Your task to perform on an android device: Open Wikipedia Image 0: 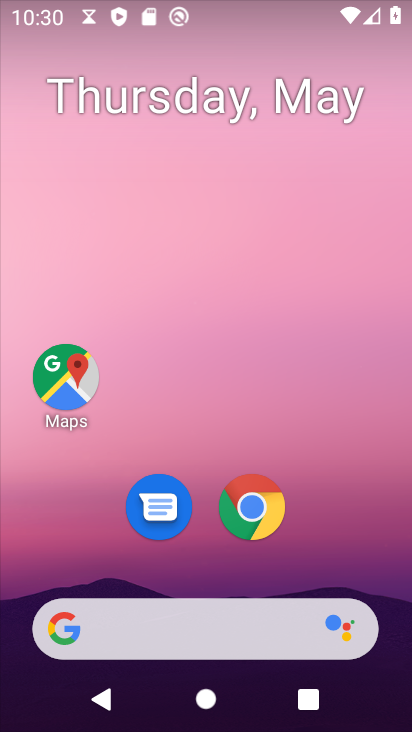
Step 0: drag from (335, 524) to (259, 0)
Your task to perform on an android device: Open Wikipedia Image 1: 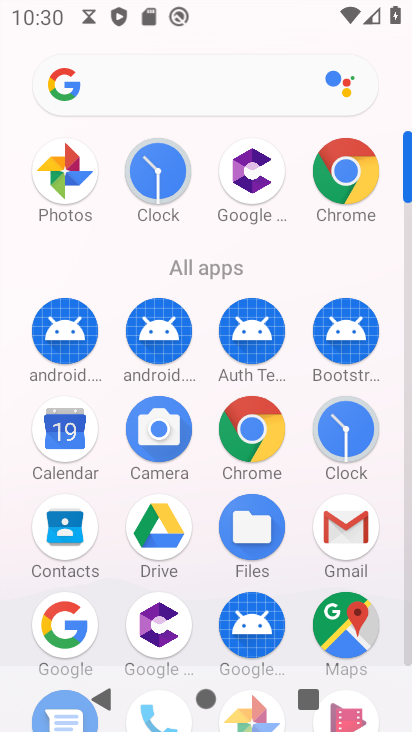
Step 1: click (345, 171)
Your task to perform on an android device: Open Wikipedia Image 2: 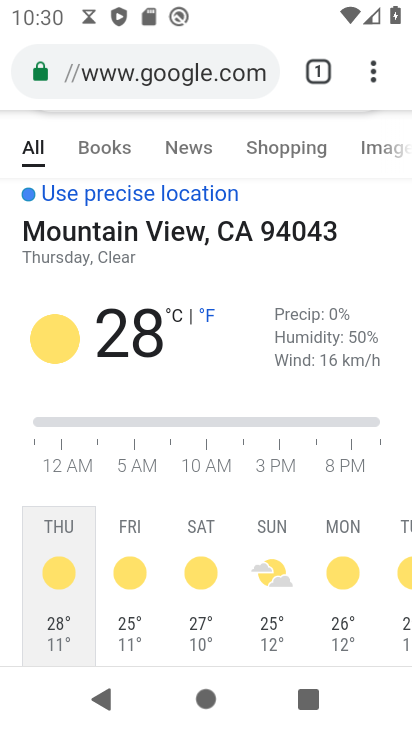
Step 2: click (172, 64)
Your task to perform on an android device: Open Wikipedia Image 3: 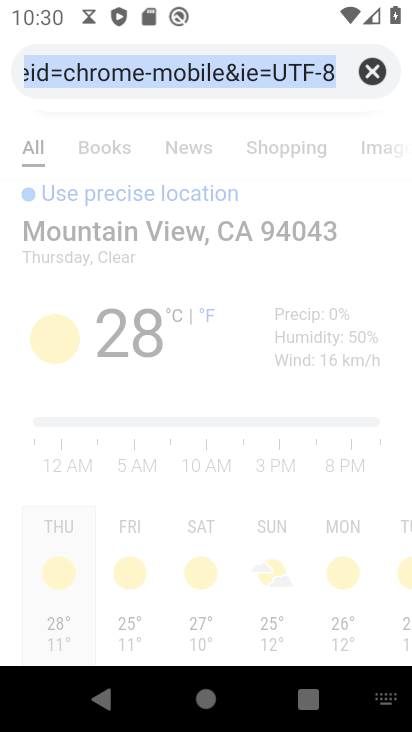
Step 3: click (362, 66)
Your task to perform on an android device: Open Wikipedia Image 4: 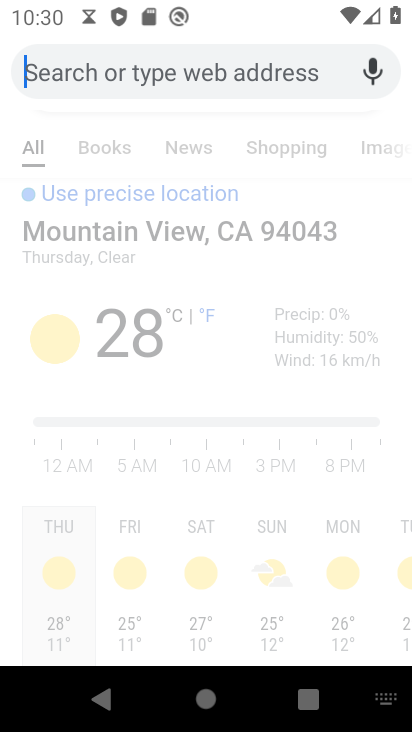
Step 4: type "Wikipedia"
Your task to perform on an android device: Open Wikipedia Image 5: 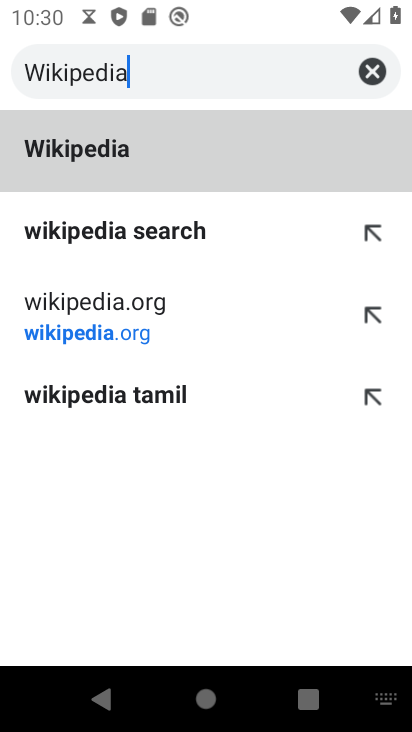
Step 5: type ""
Your task to perform on an android device: Open Wikipedia Image 6: 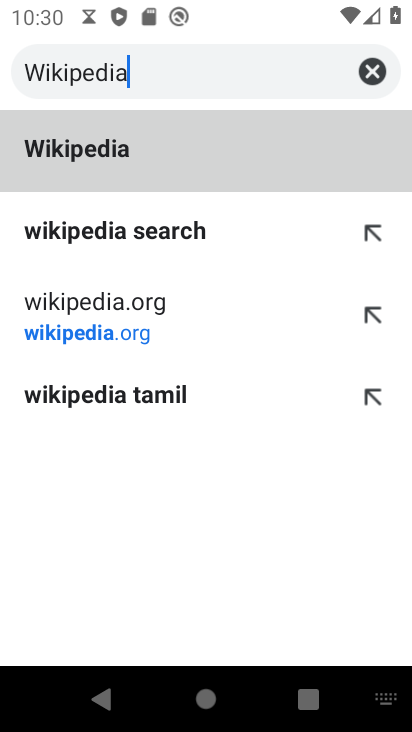
Step 6: click (84, 323)
Your task to perform on an android device: Open Wikipedia Image 7: 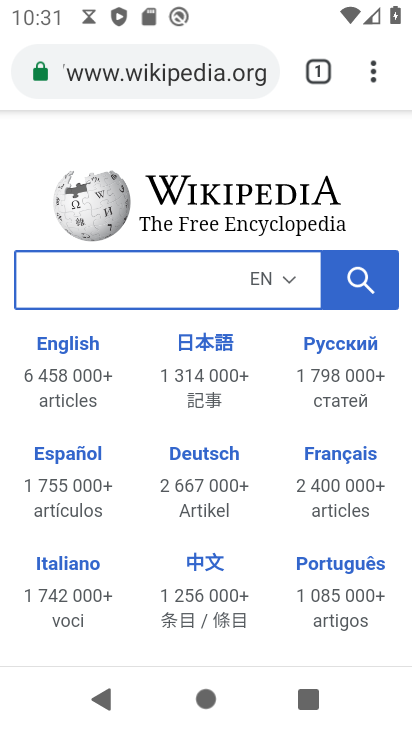
Step 7: task complete